Your task to perform on an android device: allow notifications from all sites in the chrome app Image 0: 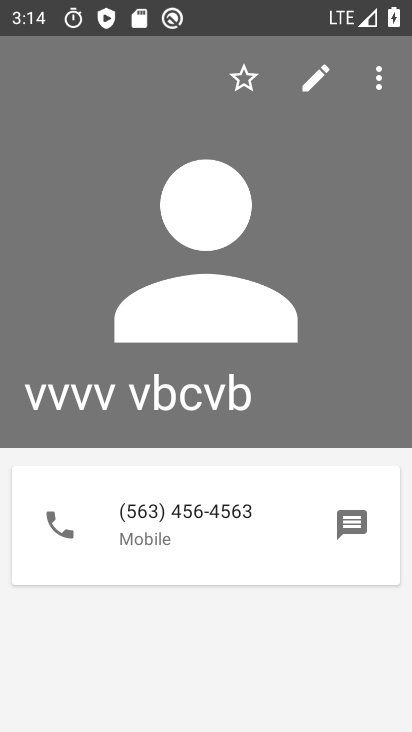
Step 0: press home button
Your task to perform on an android device: allow notifications from all sites in the chrome app Image 1: 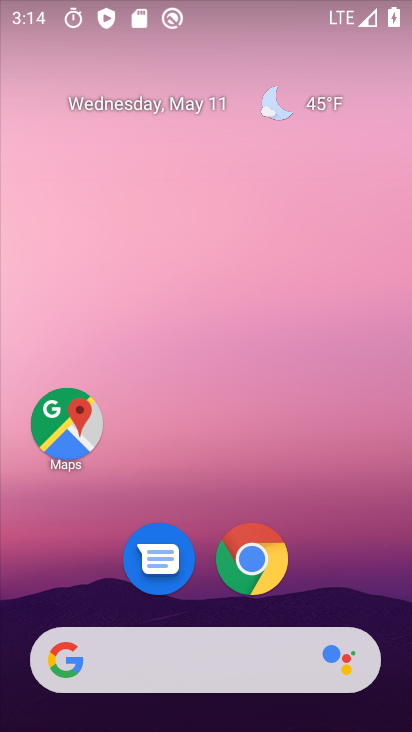
Step 1: drag from (339, 574) to (261, 131)
Your task to perform on an android device: allow notifications from all sites in the chrome app Image 2: 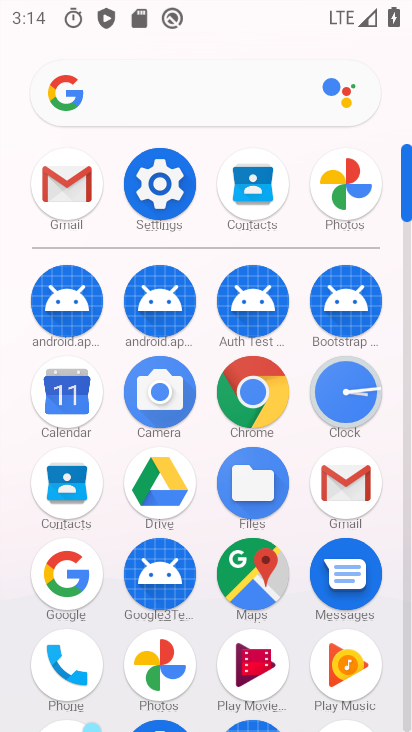
Step 2: click (256, 407)
Your task to perform on an android device: allow notifications from all sites in the chrome app Image 3: 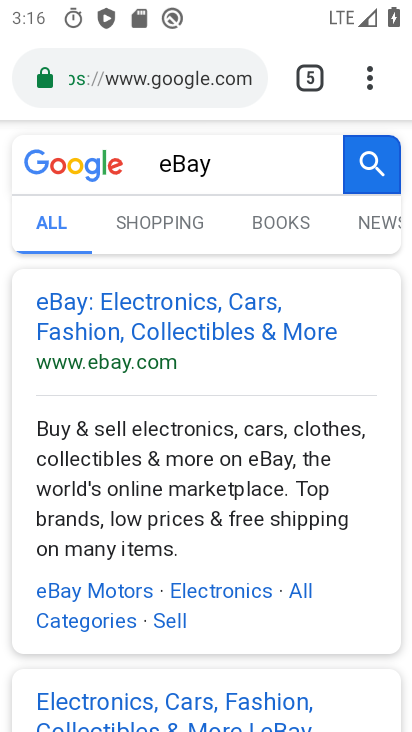
Step 3: click (369, 81)
Your task to perform on an android device: allow notifications from all sites in the chrome app Image 4: 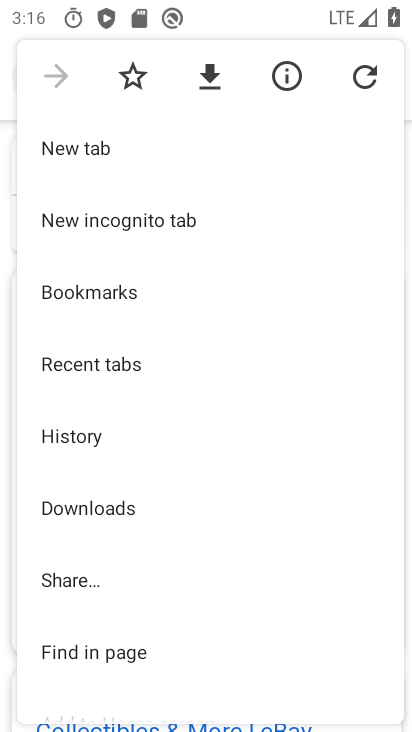
Step 4: drag from (208, 594) to (184, 165)
Your task to perform on an android device: allow notifications from all sites in the chrome app Image 5: 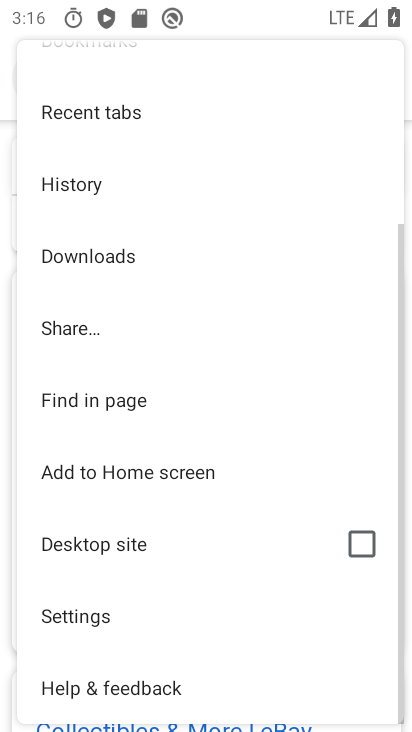
Step 5: click (150, 601)
Your task to perform on an android device: allow notifications from all sites in the chrome app Image 6: 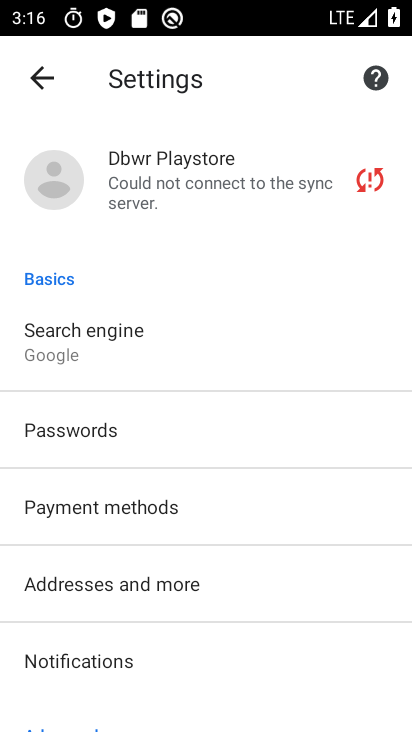
Step 6: drag from (180, 662) to (153, 219)
Your task to perform on an android device: allow notifications from all sites in the chrome app Image 7: 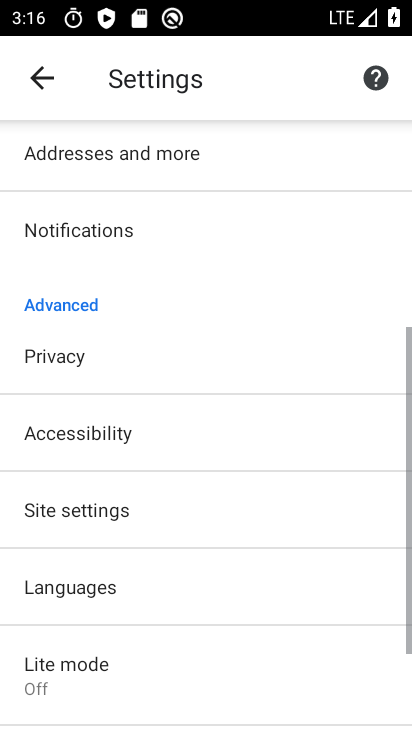
Step 7: click (121, 508)
Your task to perform on an android device: allow notifications from all sites in the chrome app Image 8: 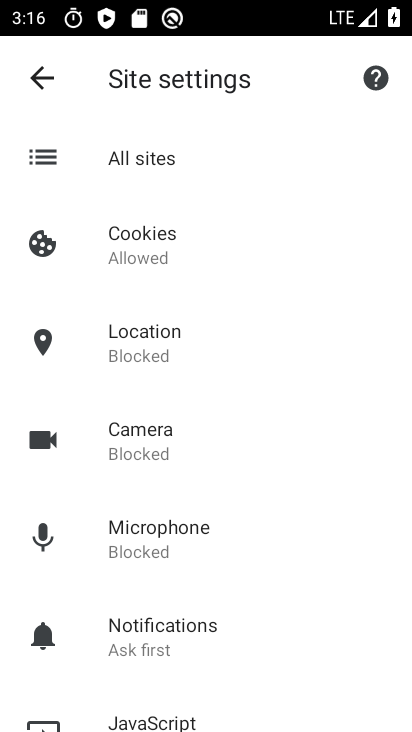
Step 8: click (219, 626)
Your task to perform on an android device: allow notifications from all sites in the chrome app Image 9: 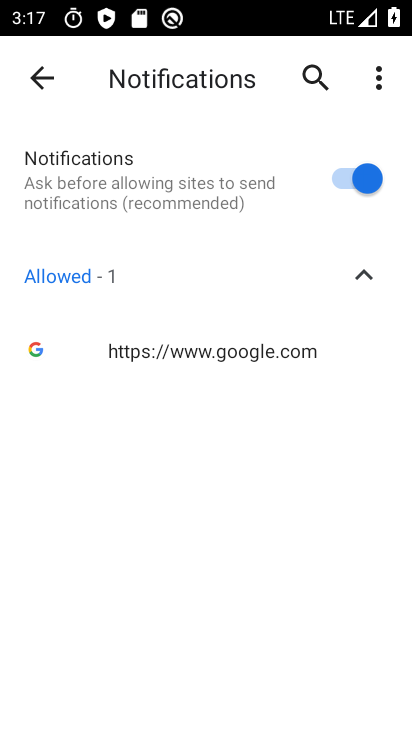
Step 9: task complete